Your task to perform on an android device: turn pop-ups off in chrome Image 0: 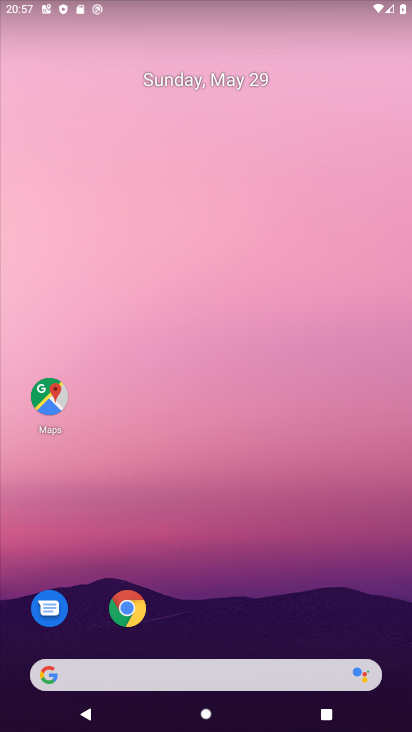
Step 0: drag from (358, 585) to (355, 173)
Your task to perform on an android device: turn pop-ups off in chrome Image 1: 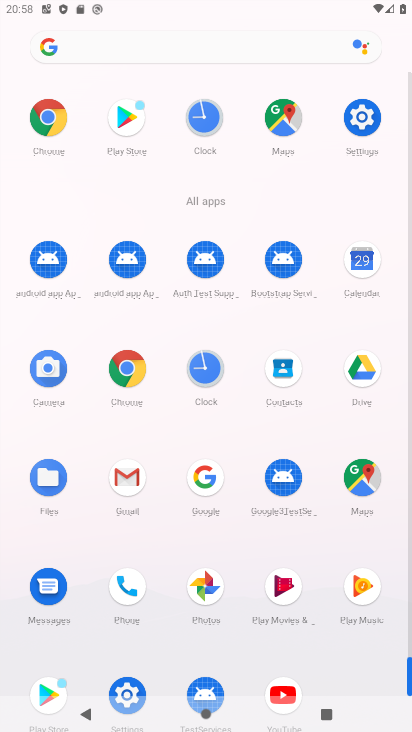
Step 1: click (126, 377)
Your task to perform on an android device: turn pop-ups off in chrome Image 2: 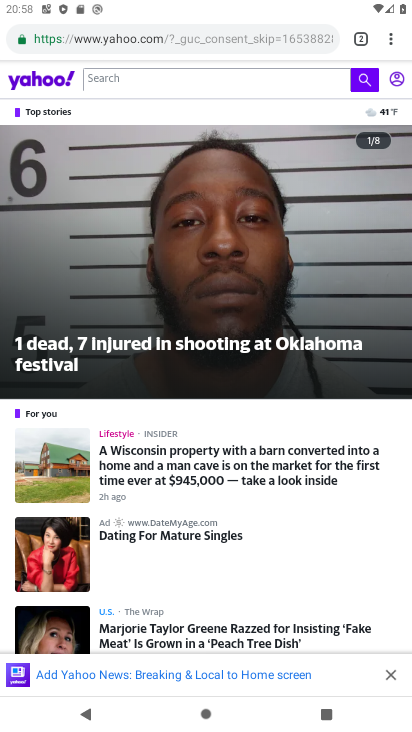
Step 2: click (393, 49)
Your task to perform on an android device: turn pop-ups off in chrome Image 3: 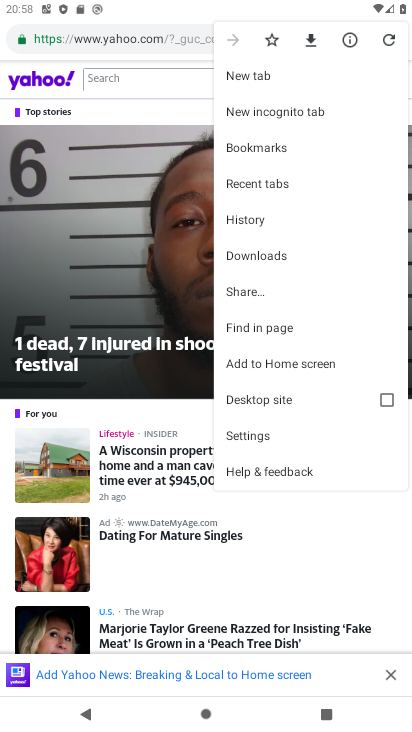
Step 3: click (264, 438)
Your task to perform on an android device: turn pop-ups off in chrome Image 4: 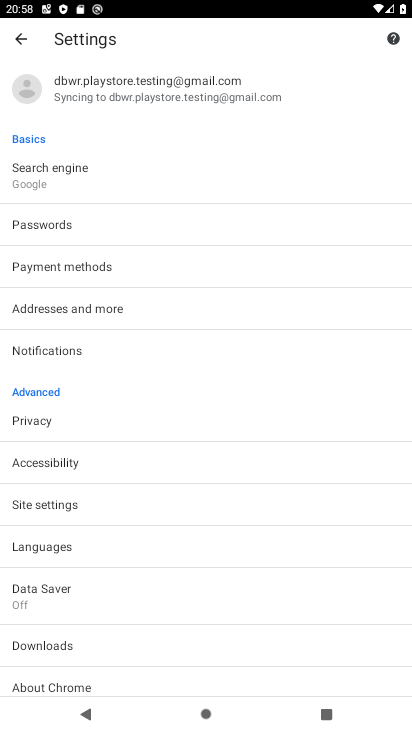
Step 4: drag from (353, 528) to (356, 438)
Your task to perform on an android device: turn pop-ups off in chrome Image 5: 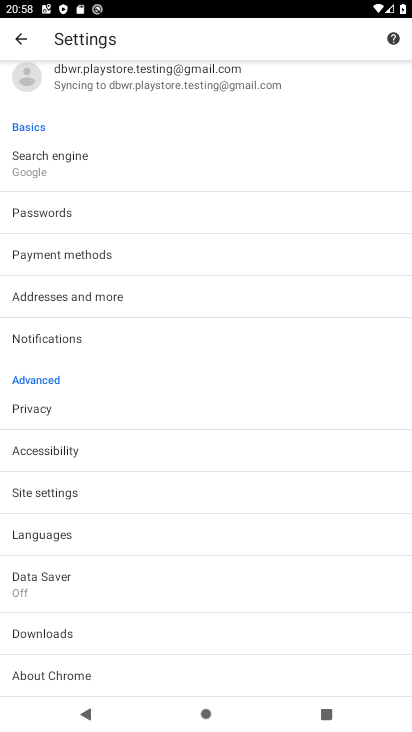
Step 5: click (240, 489)
Your task to perform on an android device: turn pop-ups off in chrome Image 6: 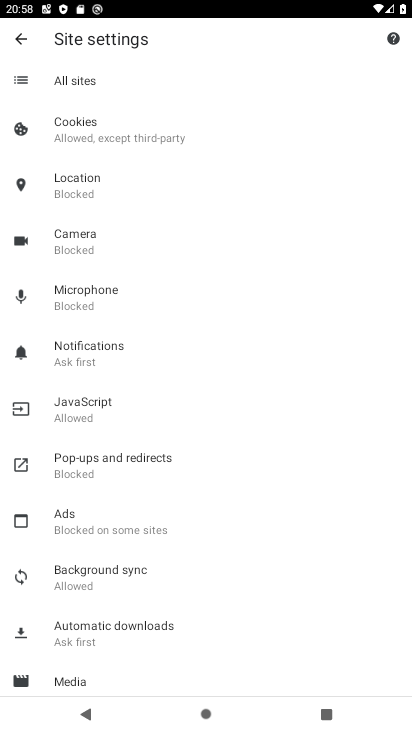
Step 6: click (206, 470)
Your task to perform on an android device: turn pop-ups off in chrome Image 7: 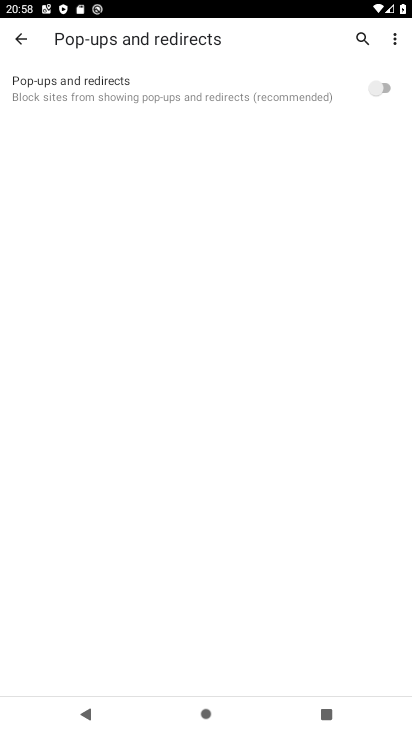
Step 7: task complete